Your task to perform on an android device: Go to Android settings Image 0: 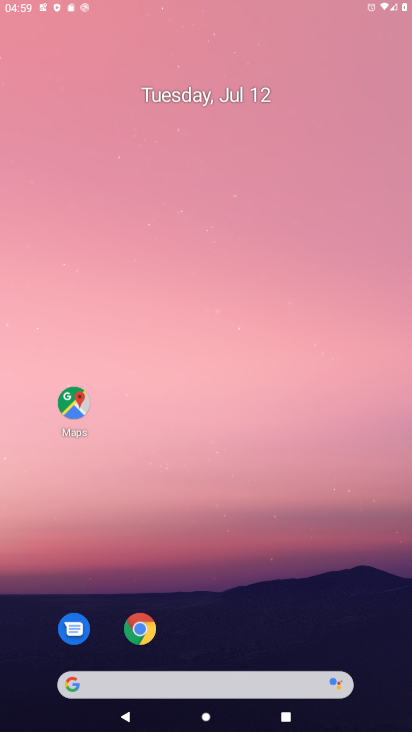
Step 0: press home button
Your task to perform on an android device: Go to Android settings Image 1: 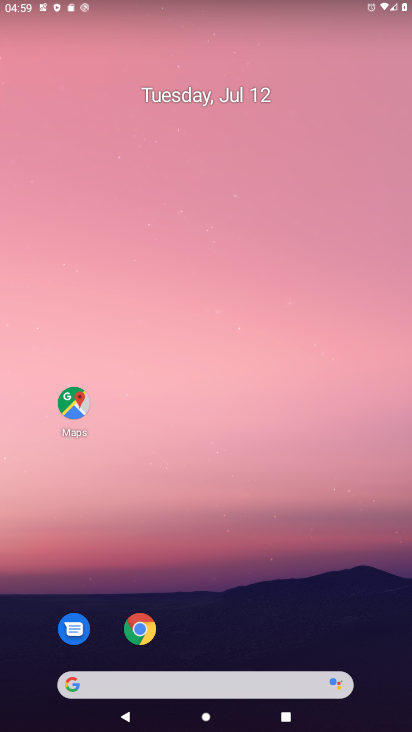
Step 1: drag from (225, 637) to (229, 96)
Your task to perform on an android device: Go to Android settings Image 2: 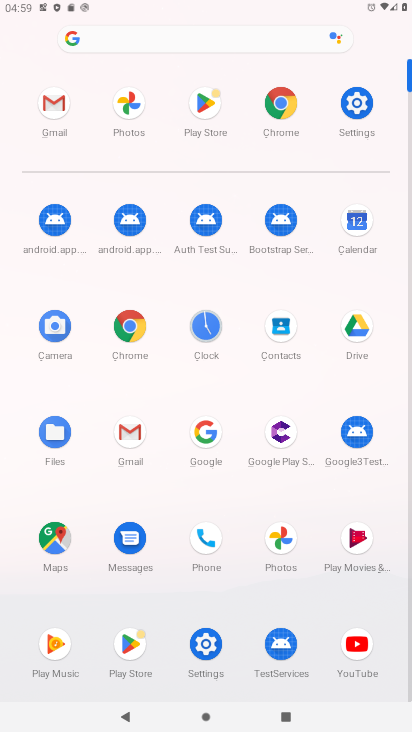
Step 2: click (355, 85)
Your task to perform on an android device: Go to Android settings Image 3: 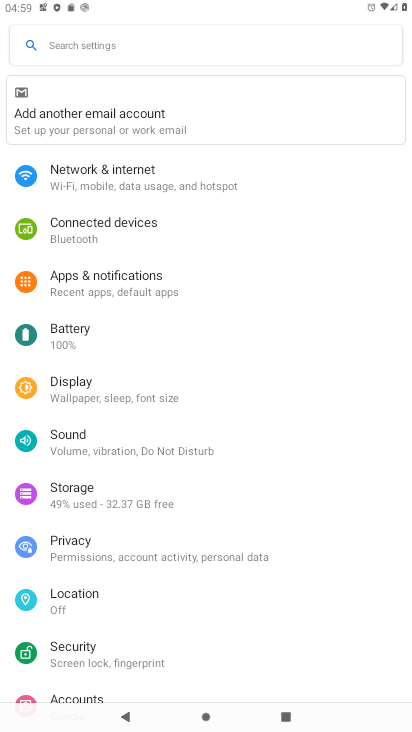
Step 3: task complete